Your task to perform on an android device: Is it going to rain tomorrow? Image 0: 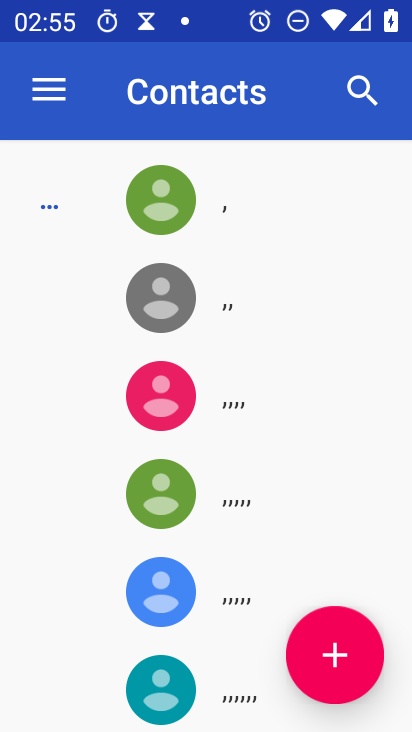
Step 0: press home button
Your task to perform on an android device: Is it going to rain tomorrow? Image 1: 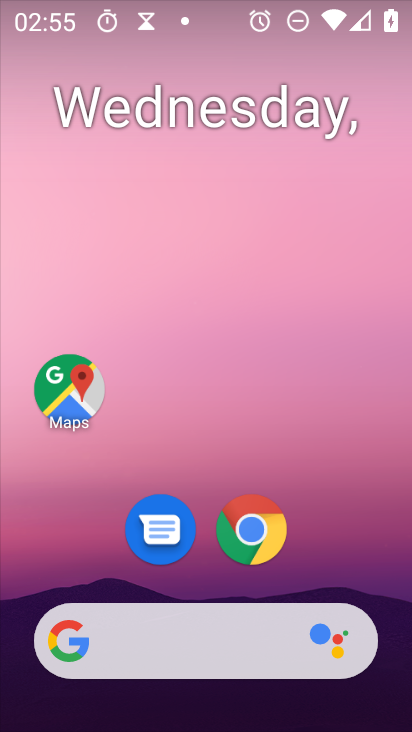
Step 1: drag from (38, 254) to (370, 343)
Your task to perform on an android device: Is it going to rain tomorrow? Image 2: 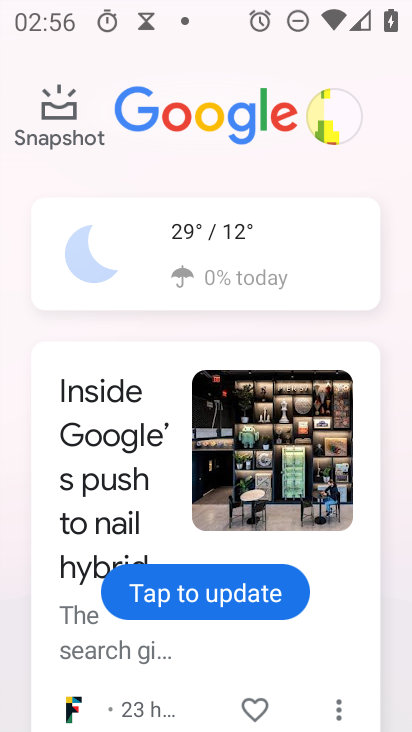
Step 2: click (251, 253)
Your task to perform on an android device: Is it going to rain tomorrow? Image 3: 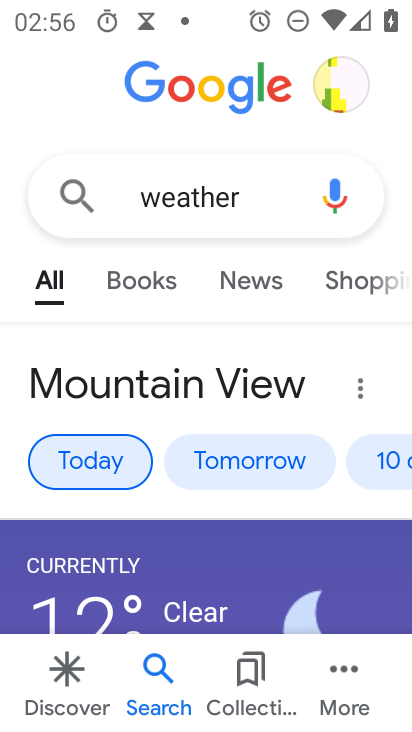
Step 3: click (262, 464)
Your task to perform on an android device: Is it going to rain tomorrow? Image 4: 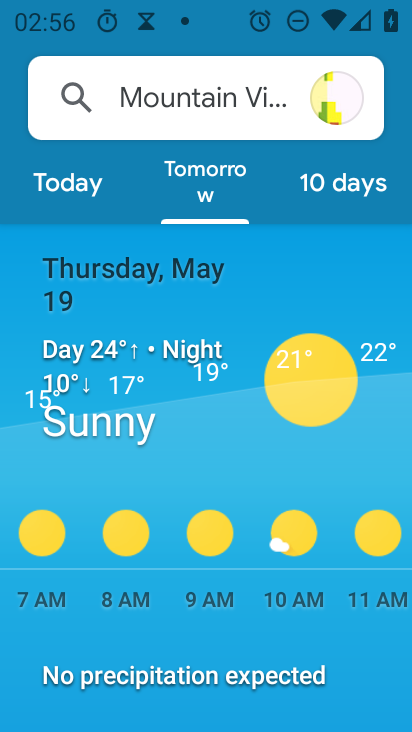
Step 4: task complete